Your task to perform on an android device: turn off priority inbox in the gmail app Image 0: 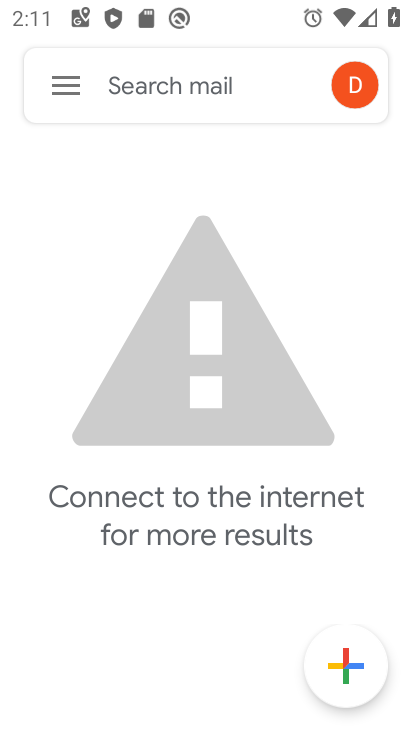
Step 0: press home button
Your task to perform on an android device: turn off priority inbox in the gmail app Image 1: 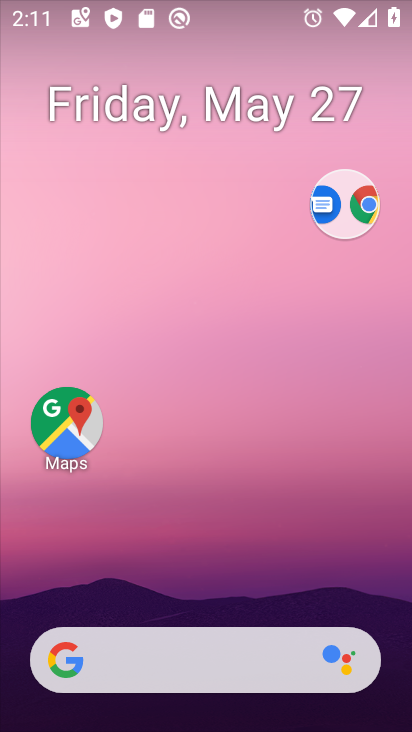
Step 1: drag from (262, 611) to (237, 125)
Your task to perform on an android device: turn off priority inbox in the gmail app Image 2: 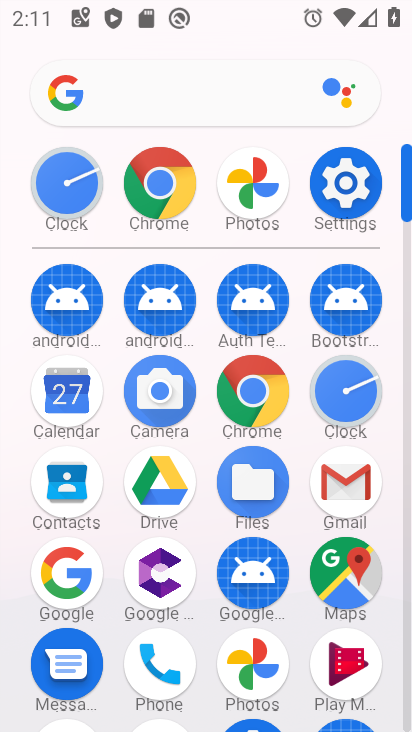
Step 2: click (347, 499)
Your task to perform on an android device: turn off priority inbox in the gmail app Image 3: 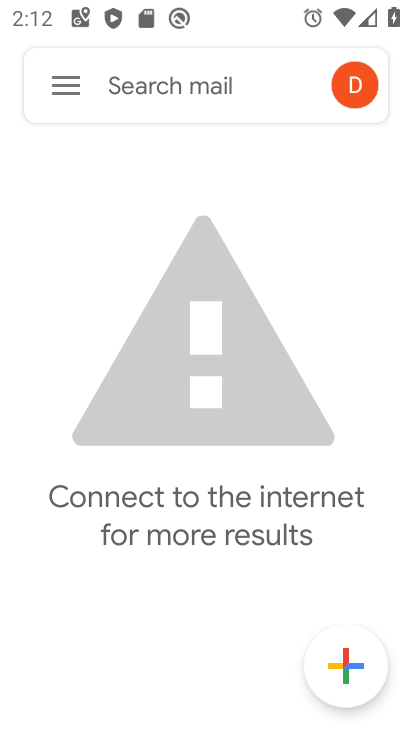
Step 3: click (79, 85)
Your task to perform on an android device: turn off priority inbox in the gmail app Image 4: 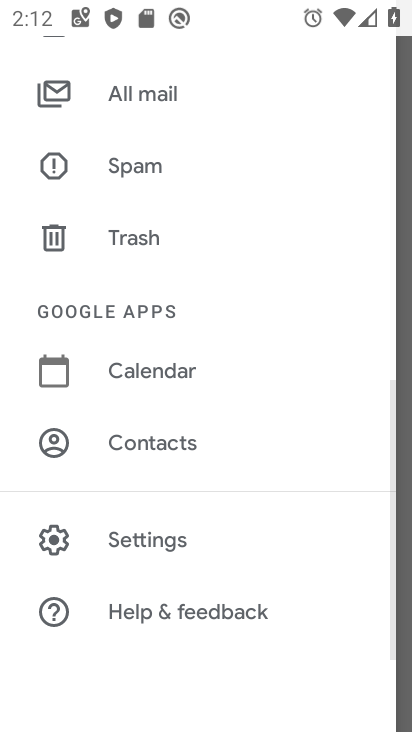
Step 4: drag from (130, 512) to (157, 314)
Your task to perform on an android device: turn off priority inbox in the gmail app Image 5: 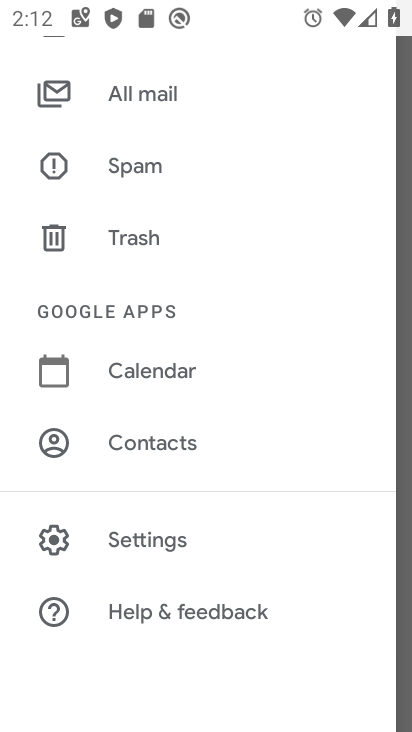
Step 5: drag from (201, 614) to (189, 446)
Your task to perform on an android device: turn off priority inbox in the gmail app Image 6: 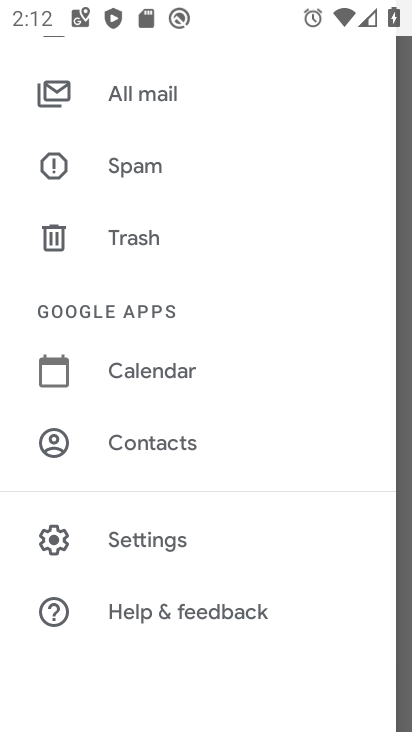
Step 6: click (166, 553)
Your task to perform on an android device: turn off priority inbox in the gmail app Image 7: 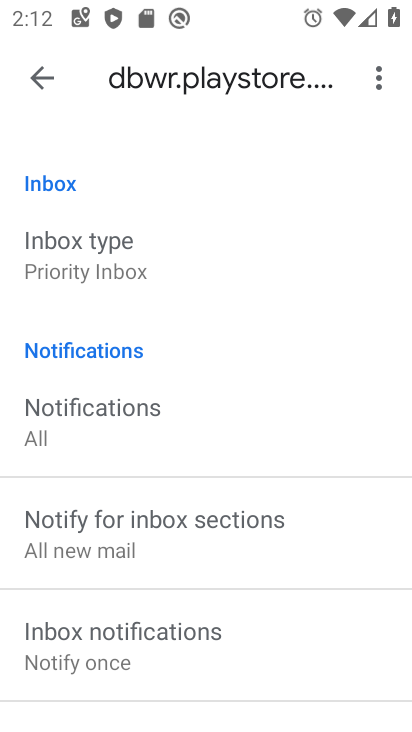
Step 7: click (77, 275)
Your task to perform on an android device: turn off priority inbox in the gmail app Image 8: 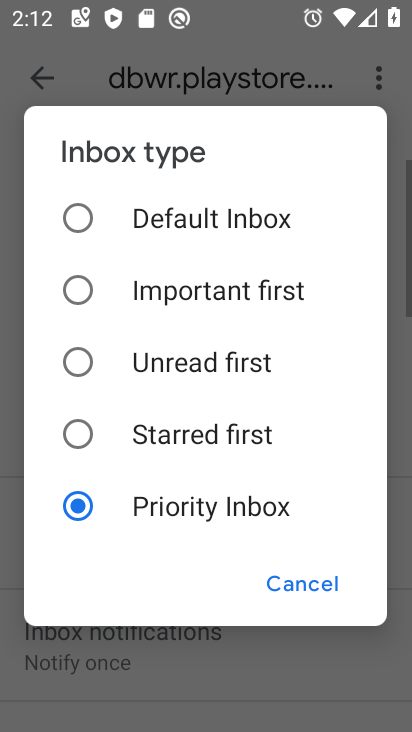
Step 8: click (171, 230)
Your task to perform on an android device: turn off priority inbox in the gmail app Image 9: 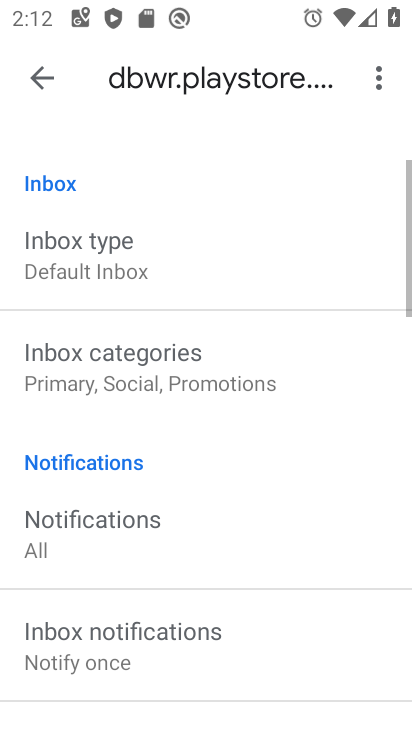
Step 9: task complete